Your task to perform on an android device: Go to Google Image 0: 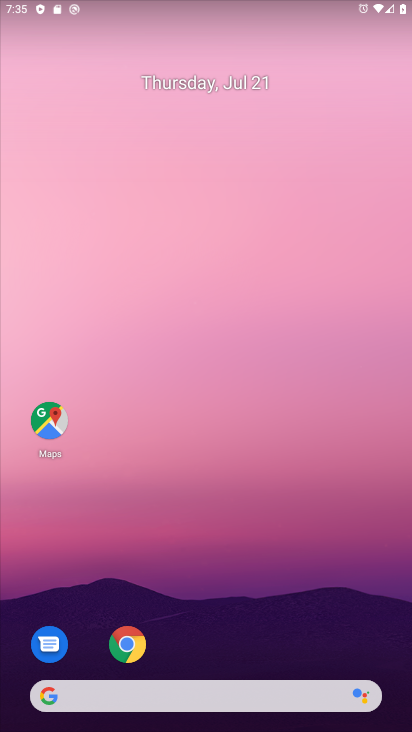
Step 0: drag from (216, 635) to (208, 307)
Your task to perform on an android device: Go to Google Image 1: 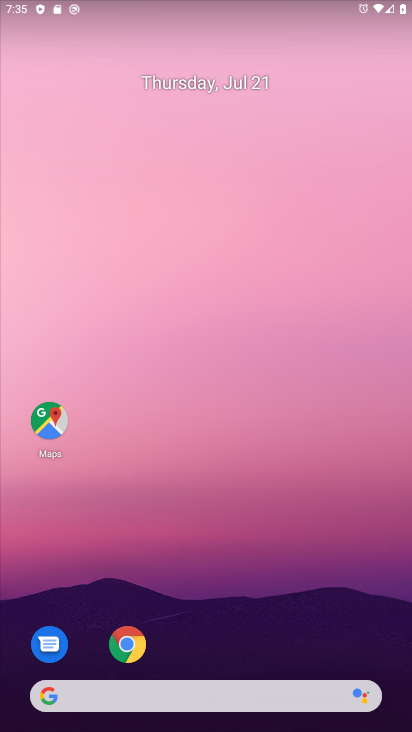
Step 1: drag from (230, 614) to (223, 265)
Your task to perform on an android device: Go to Google Image 2: 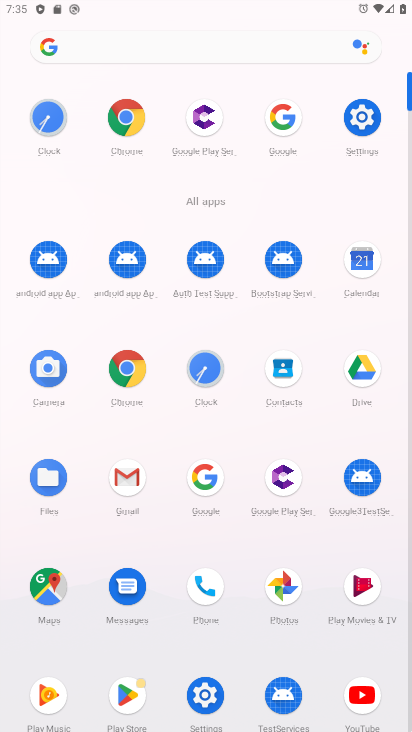
Step 2: click (211, 488)
Your task to perform on an android device: Go to Google Image 3: 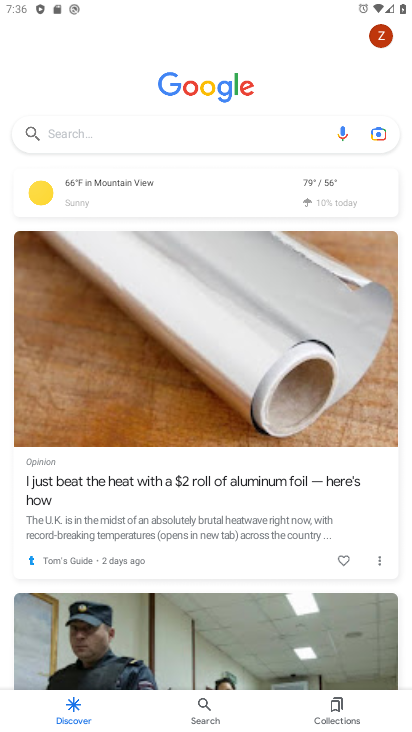
Step 3: task complete